Your task to perform on an android device: turn smart compose on in the gmail app Image 0: 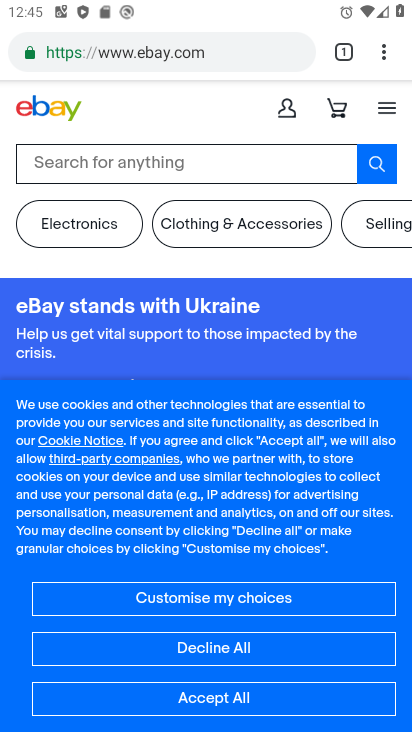
Step 0: press back button
Your task to perform on an android device: turn smart compose on in the gmail app Image 1: 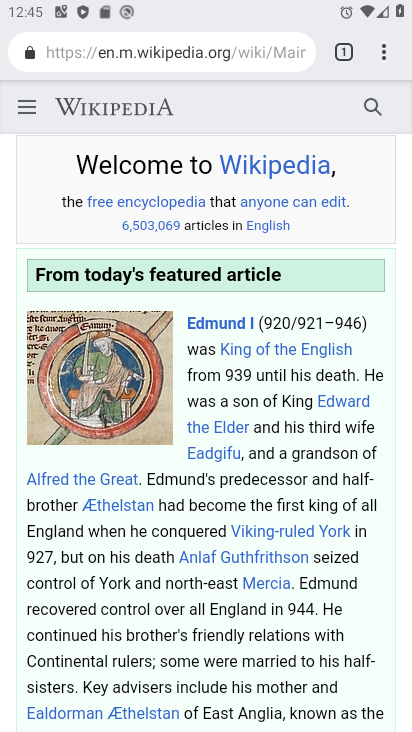
Step 1: press home button
Your task to perform on an android device: turn smart compose on in the gmail app Image 2: 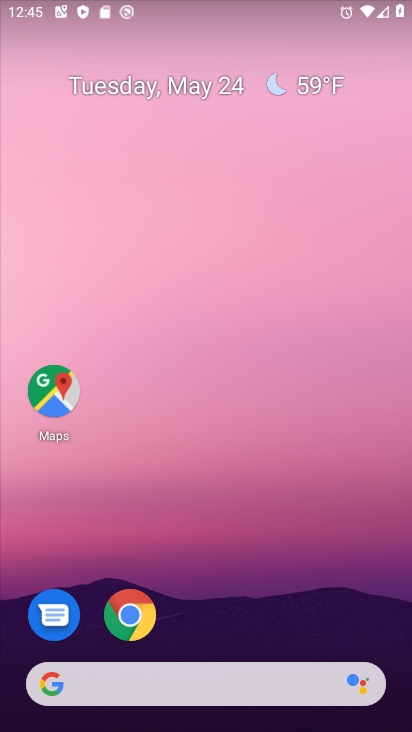
Step 2: drag from (268, 577) to (224, 43)
Your task to perform on an android device: turn smart compose on in the gmail app Image 3: 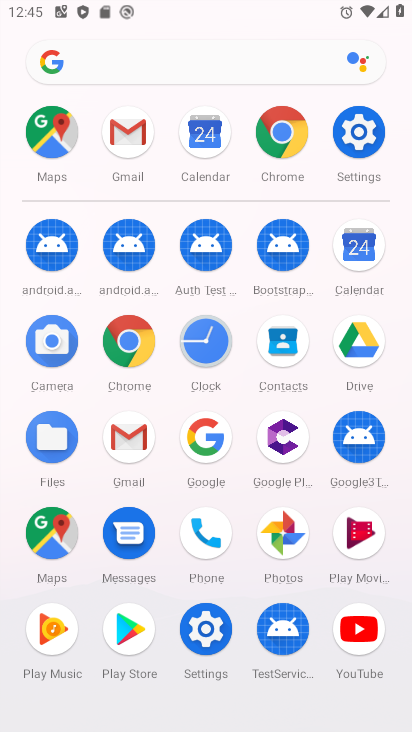
Step 3: drag from (26, 576) to (1, 282)
Your task to perform on an android device: turn smart compose on in the gmail app Image 4: 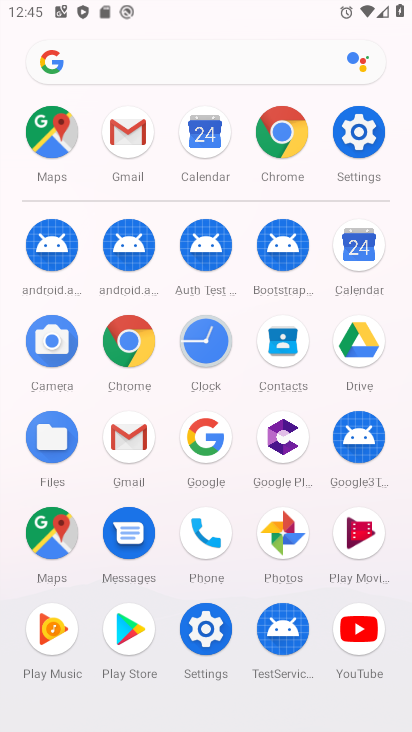
Step 4: click (128, 434)
Your task to perform on an android device: turn smart compose on in the gmail app Image 5: 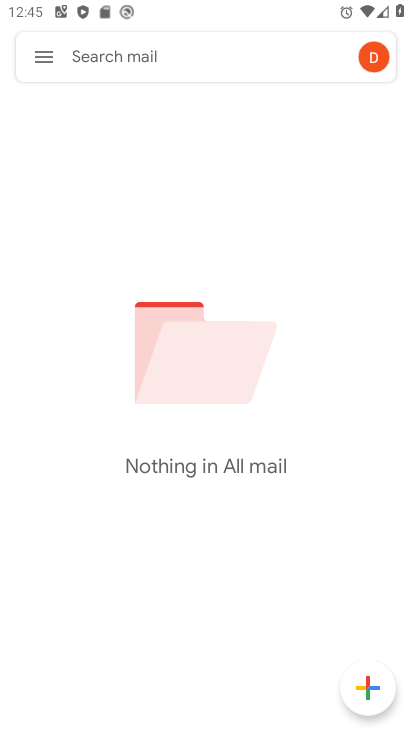
Step 5: click (44, 64)
Your task to perform on an android device: turn smart compose on in the gmail app Image 6: 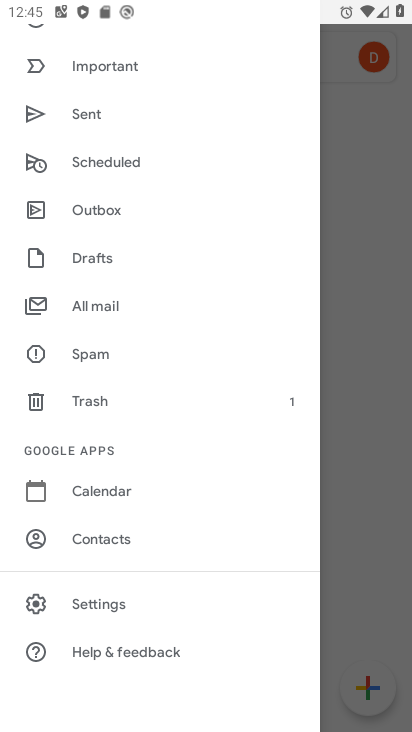
Step 6: click (111, 605)
Your task to perform on an android device: turn smart compose on in the gmail app Image 7: 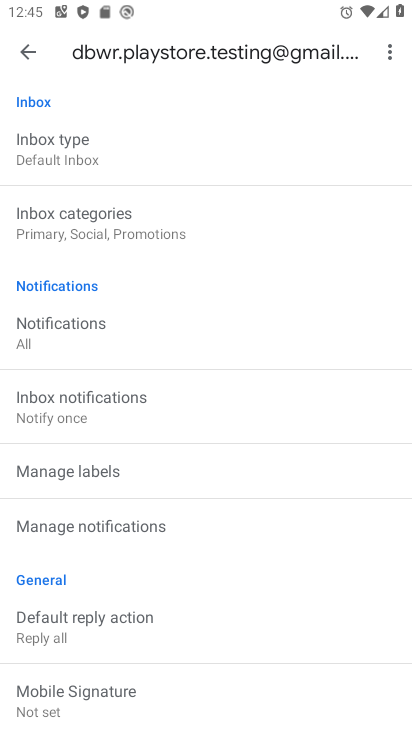
Step 7: task complete